Your task to perform on an android device: open the mobile data screen to see how much data has been used Image 0: 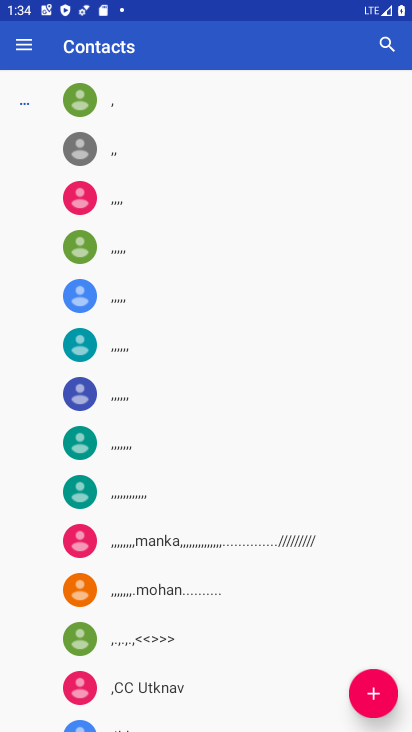
Step 0: press home button
Your task to perform on an android device: open the mobile data screen to see how much data has been used Image 1: 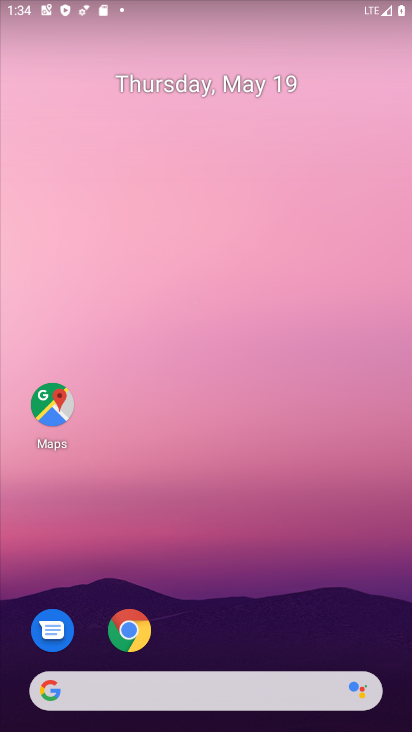
Step 1: drag from (217, 659) to (152, 111)
Your task to perform on an android device: open the mobile data screen to see how much data has been used Image 2: 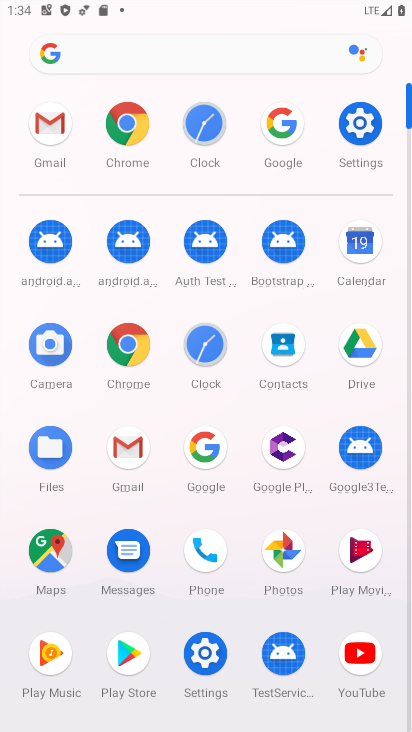
Step 2: click (350, 125)
Your task to perform on an android device: open the mobile data screen to see how much data has been used Image 3: 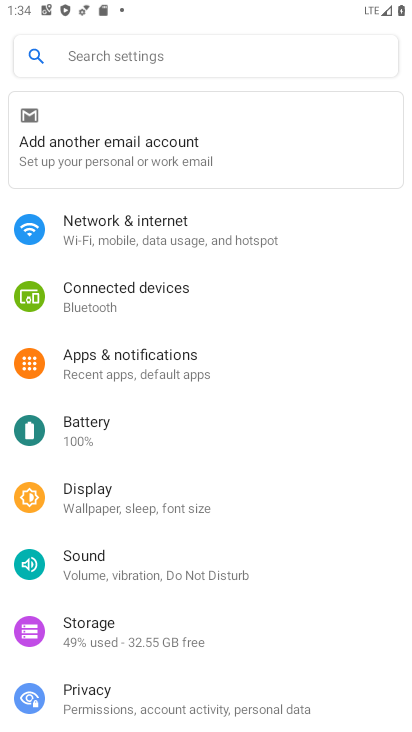
Step 3: click (123, 222)
Your task to perform on an android device: open the mobile data screen to see how much data has been used Image 4: 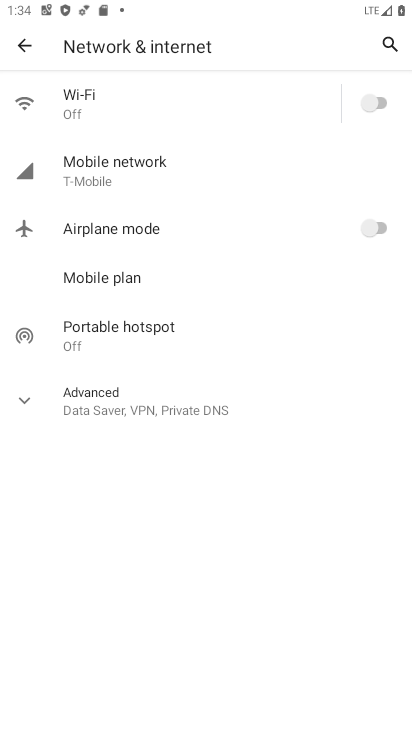
Step 4: click (135, 176)
Your task to perform on an android device: open the mobile data screen to see how much data has been used Image 5: 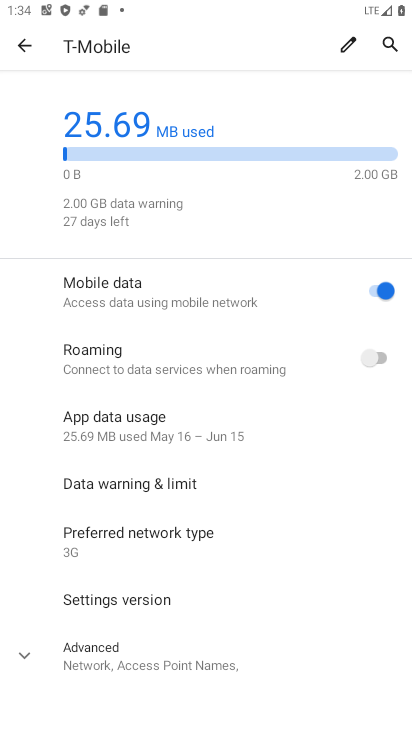
Step 5: task complete